Your task to perform on an android device: turn off smart reply in the gmail app Image 0: 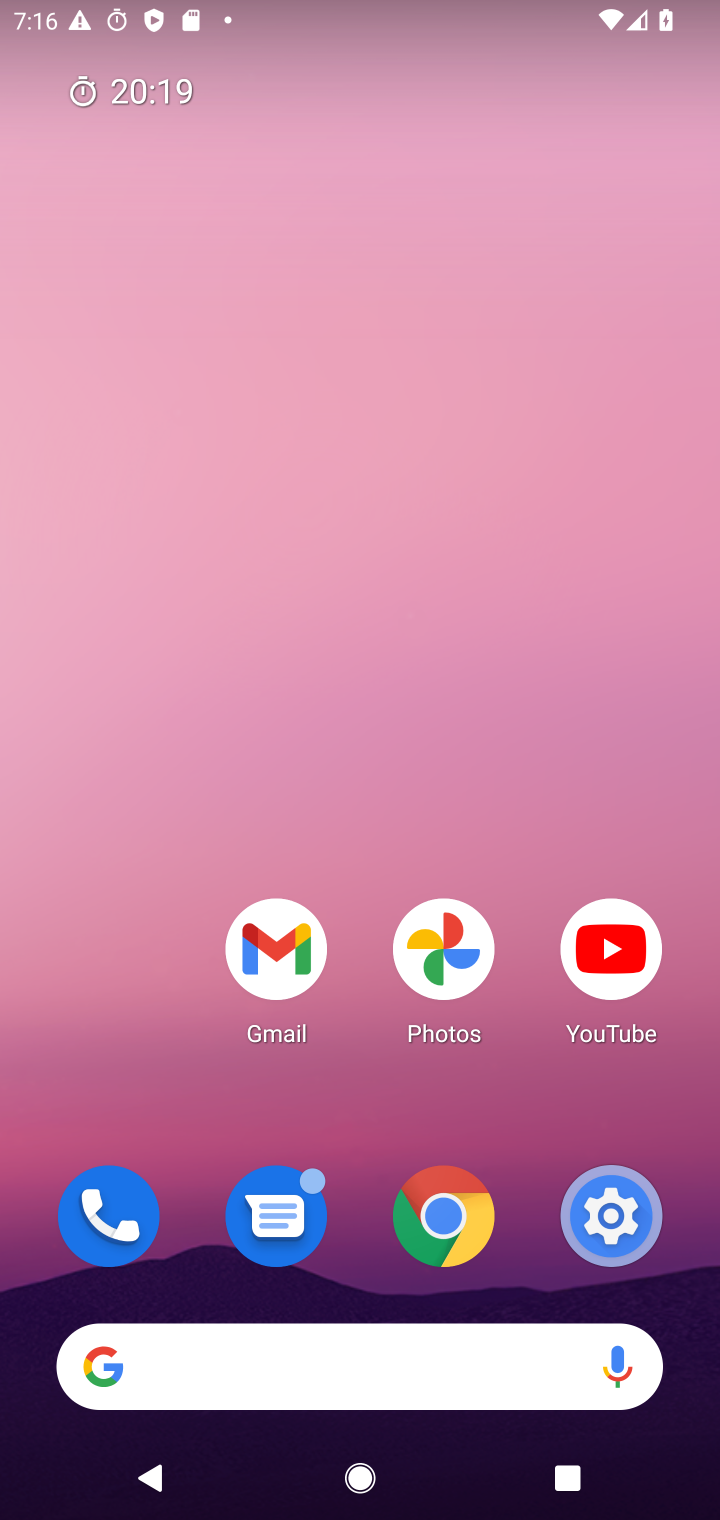
Step 0: click (291, 945)
Your task to perform on an android device: turn off smart reply in the gmail app Image 1: 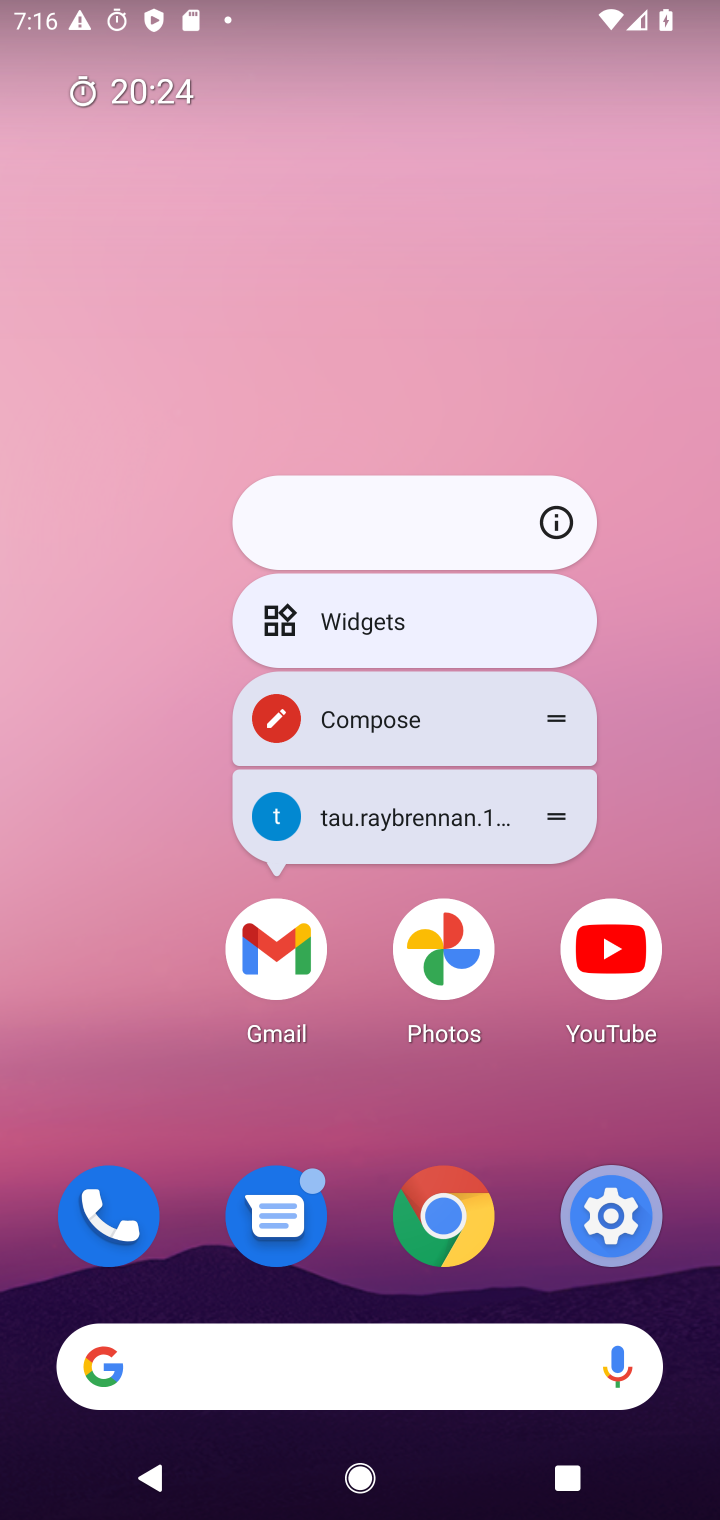
Step 1: click (96, 1021)
Your task to perform on an android device: turn off smart reply in the gmail app Image 2: 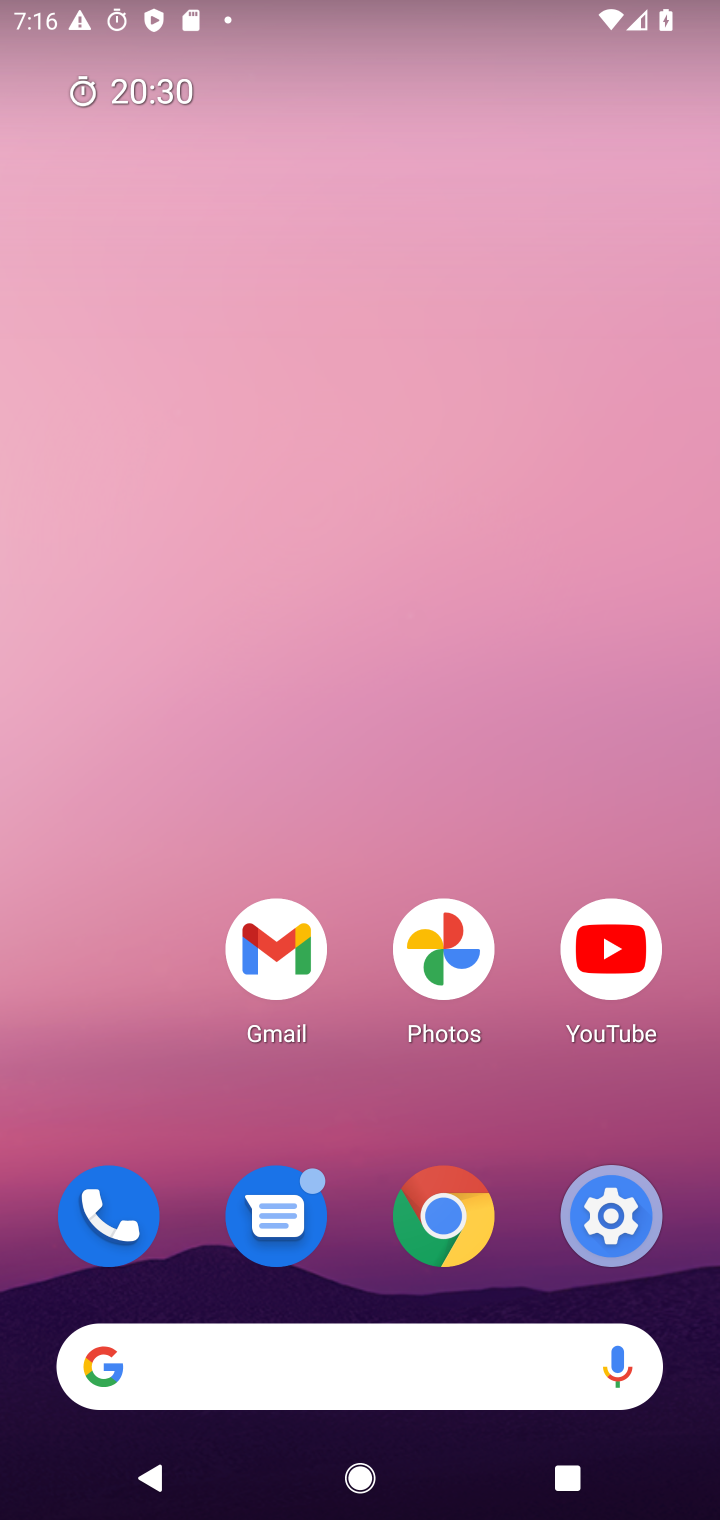
Step 2: drag from (355, 969) to (687, 527)
Your task to perform on an android device: turn off smart reply in the gmail app Image 3: 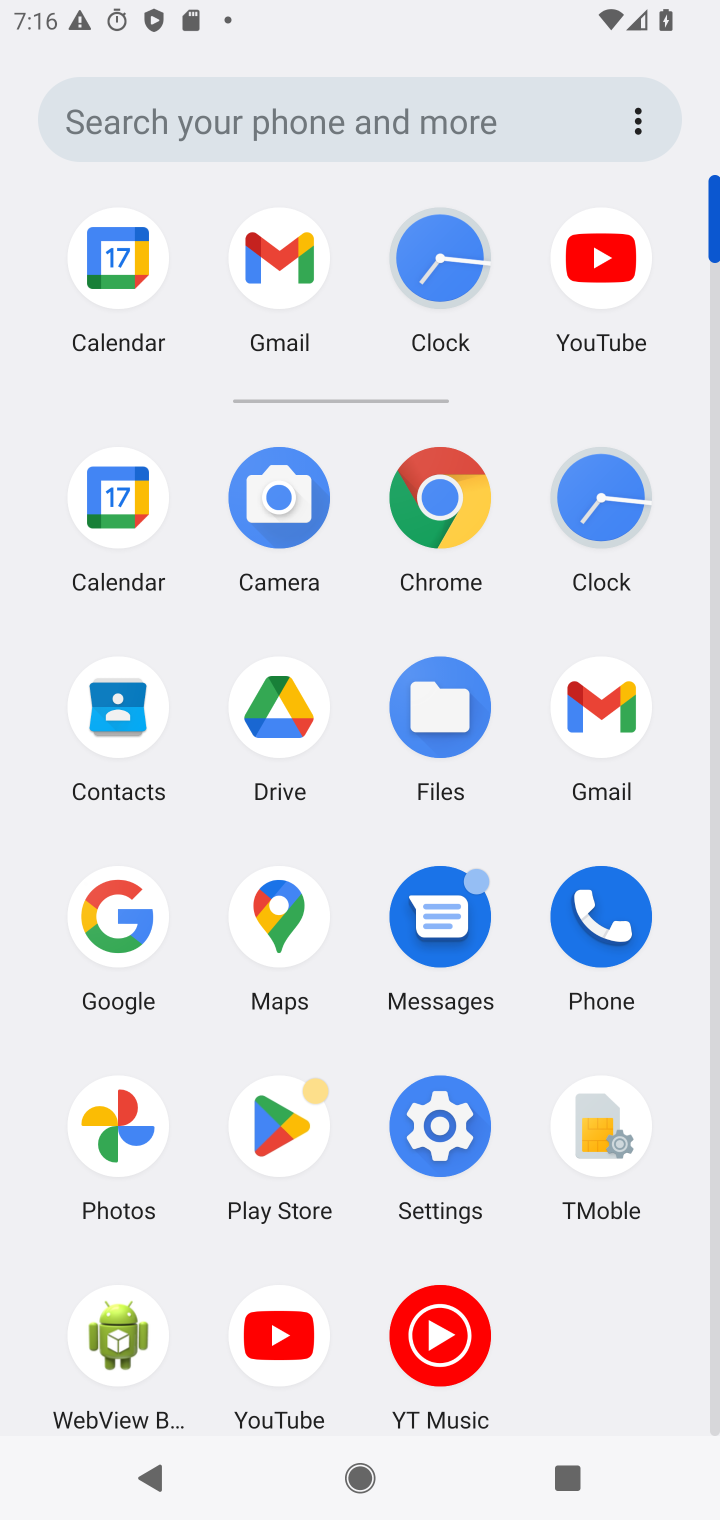
Step 3: click (276, 261)
Your task to perform on an android device: turn off smart reply in the gmail app Image 4: 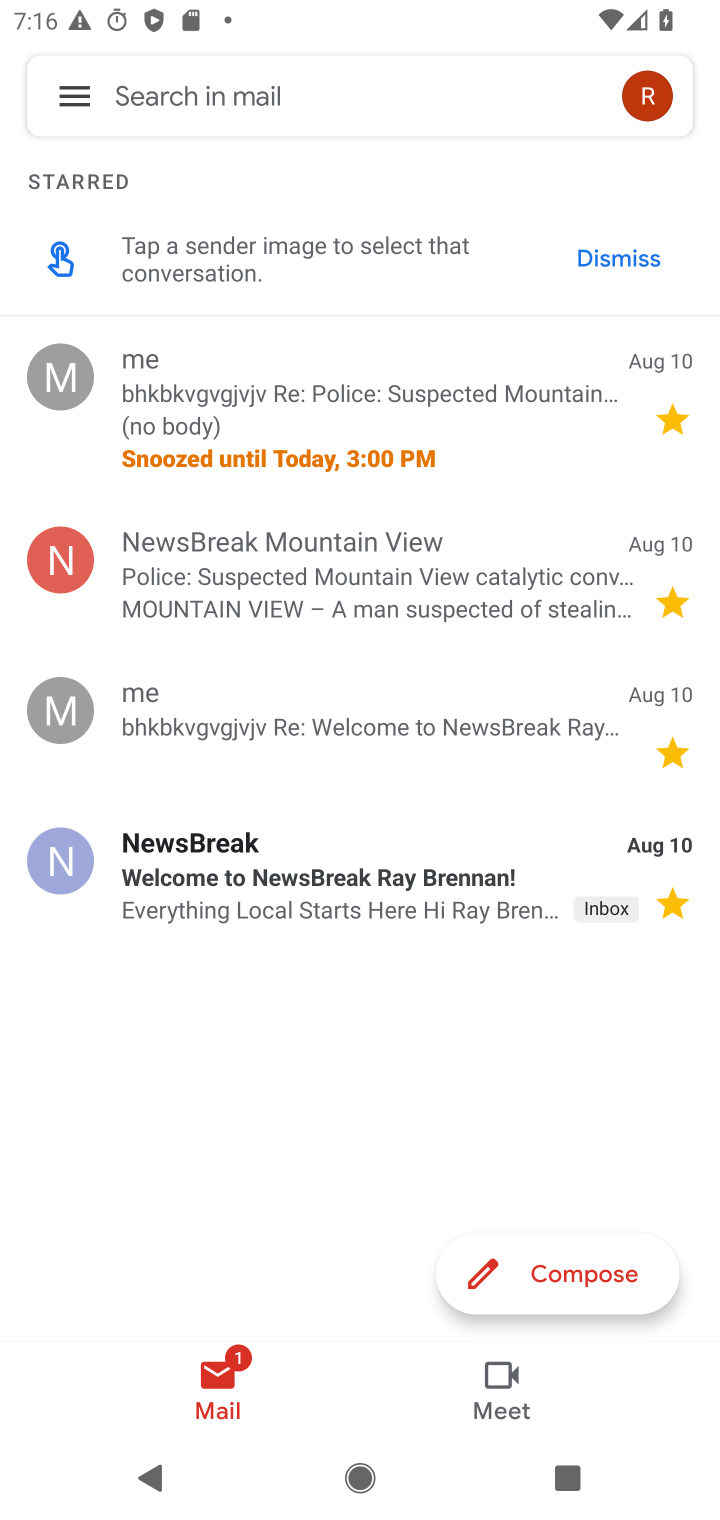
Step 4: click (72, 104)
Your task to perform on an android device: turn off smart reply in the gmail app Image 5: 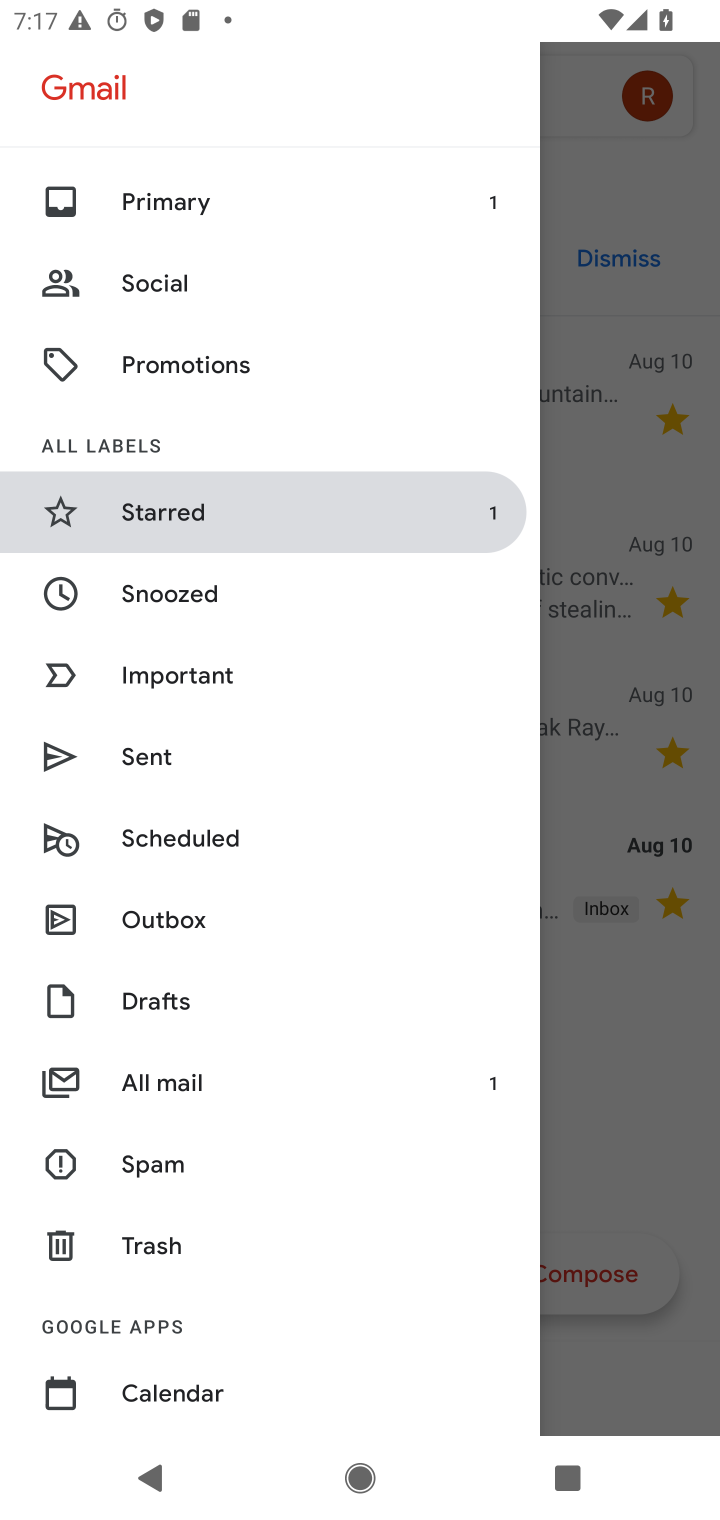
Step 5: drag from (276, 1187) to (341, 206)
Your task to perform on an android device: turn off smart reply in the gmail app Image 6: 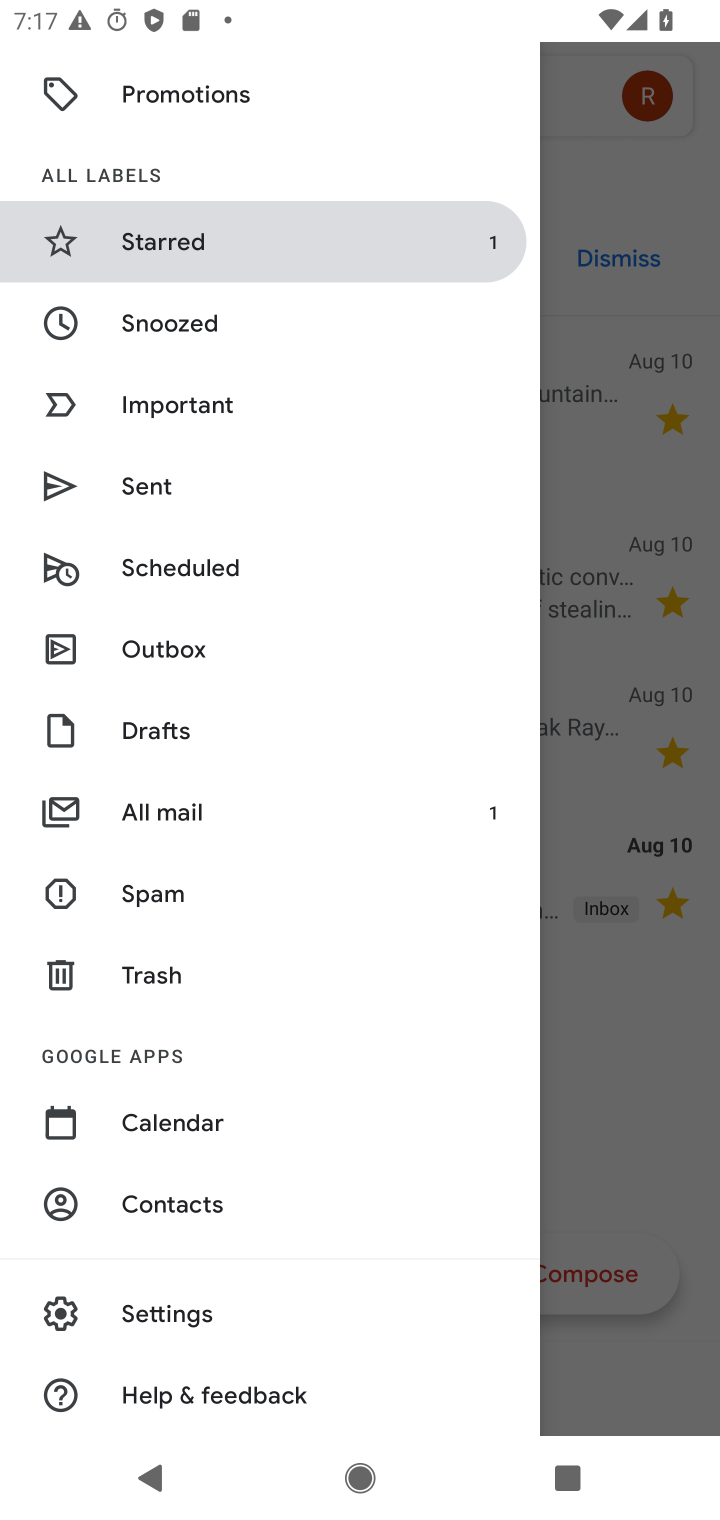
Step 6: click (165, 1315)
Your task to perform on an android device: turn off smart reply in the gmail app Image 7: 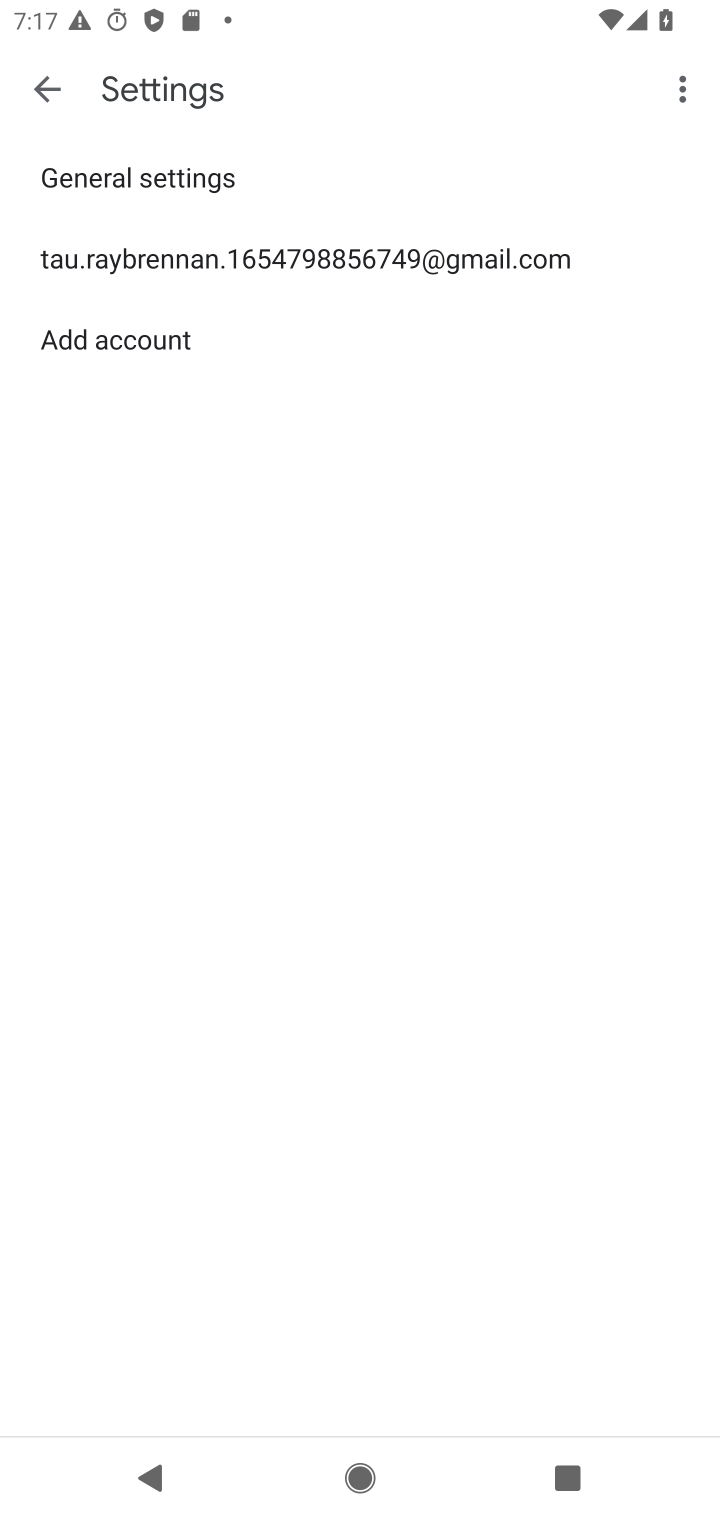
Step 7: click (417, 237)
Your task to perform on an android device: turn off smart reply in the gmail app Image 8: 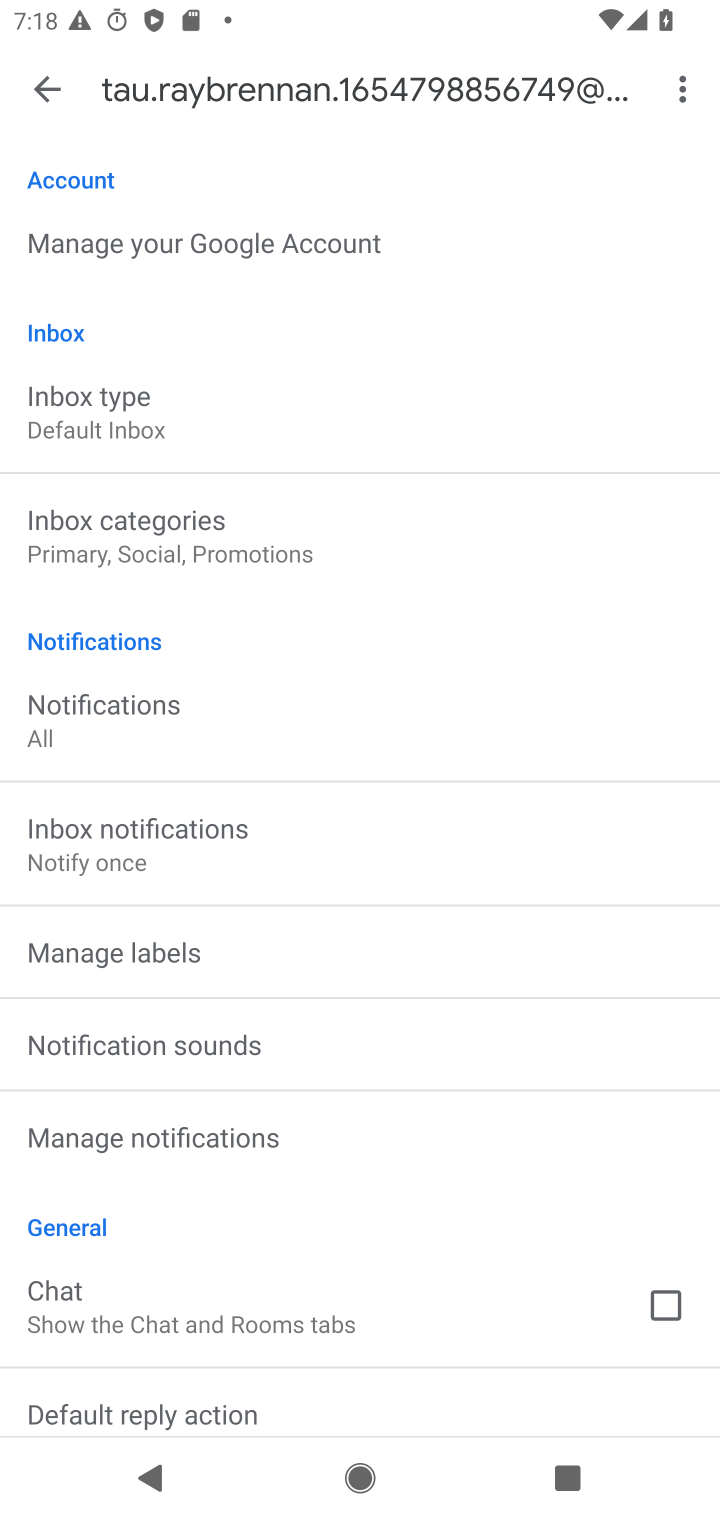
Step 8: drag from (282, 1258) to (399, 262)
Your task to perform on an android device: turn off smart reply in the gmail app Image 9: 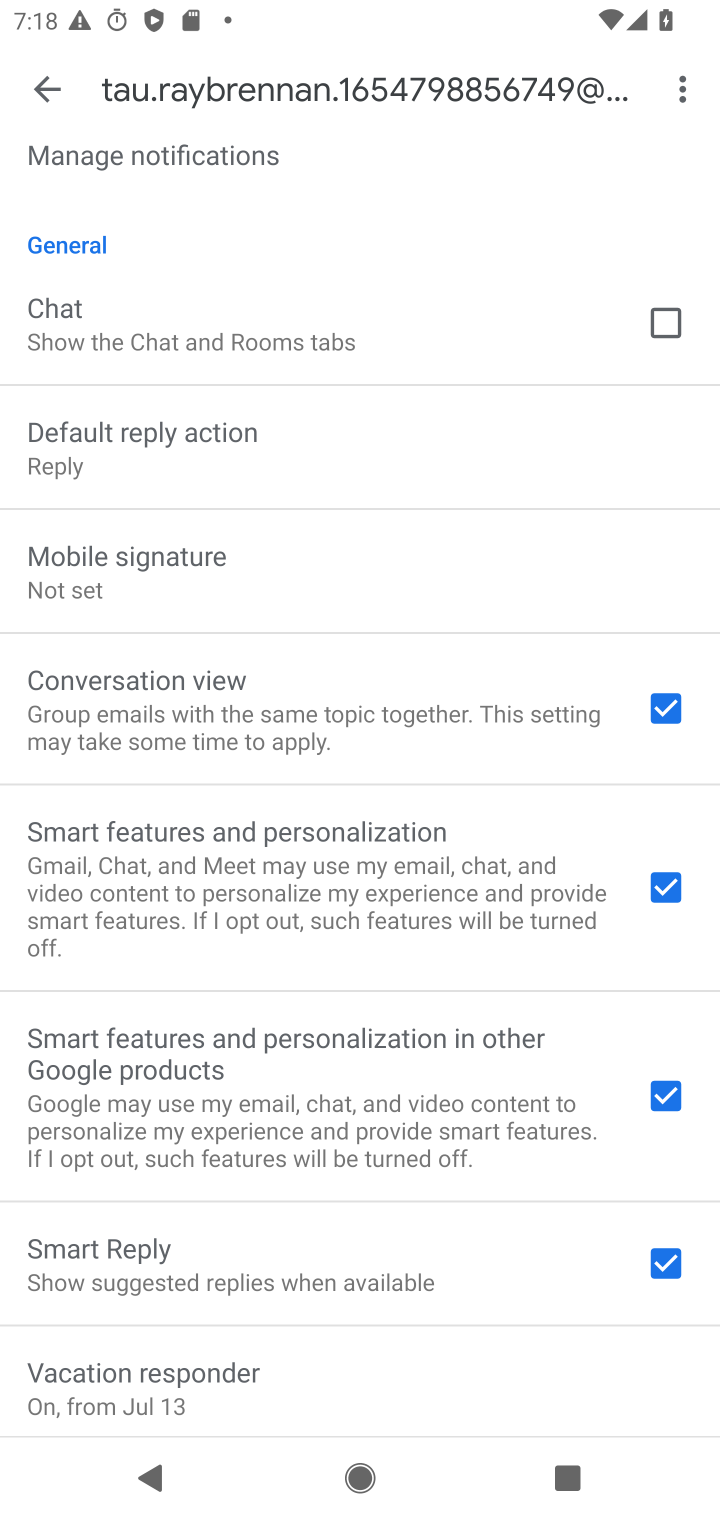
Step 9: click (208, 1272)
Your task to perform on an android device: turn off smart reply in the gmail app Image 10: 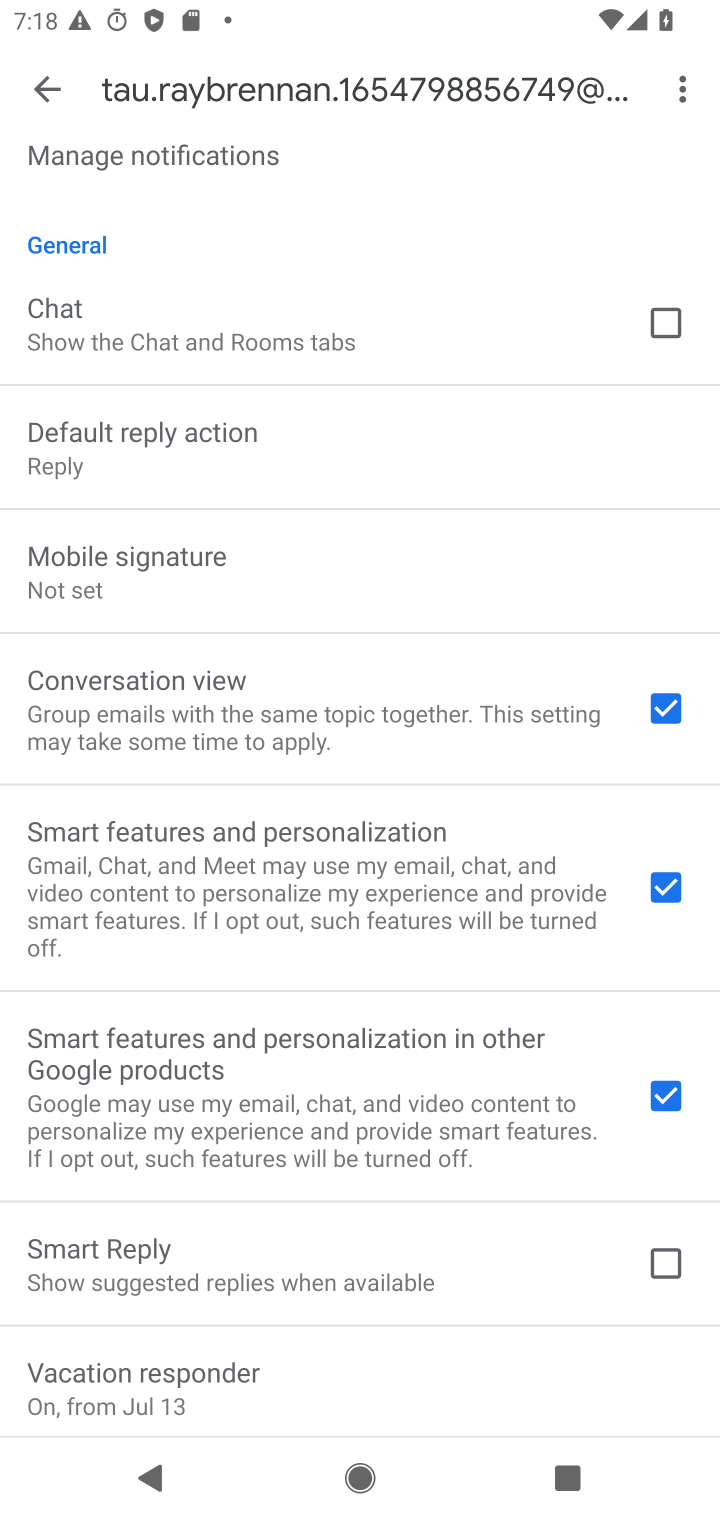
Step 10: task complete